Your task to perform on an android device: Check the weather Image 0: 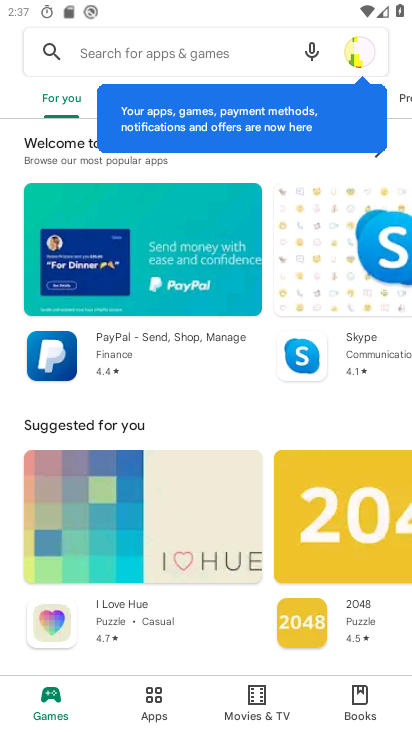
Step 0: press home button
Your task to perform on an android device: Check the weather Image 1: 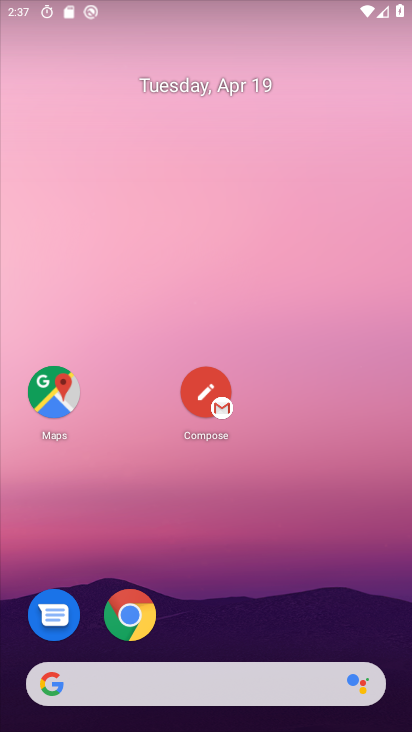
Step 1: drag from (297, 661) to (274, 119)
Your task to perform on an android device: Check the weather Image 2: 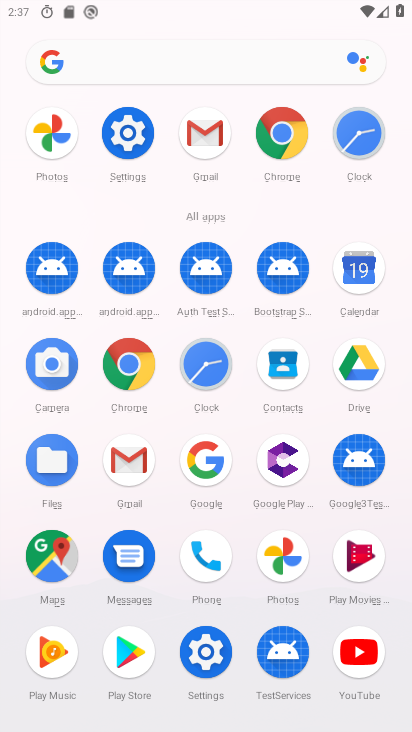
Step 2: drag from (325, 584) to (320, 240)
Your task to perform on an android device: Check the weather Image 3: 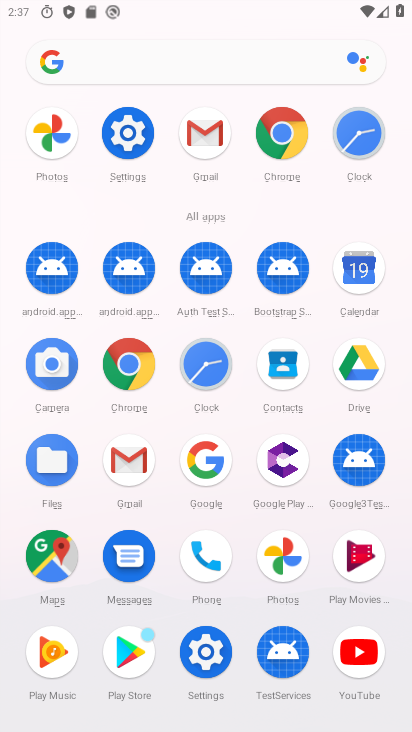
Step 3: click (139, 364)
Your task to perform on an android device: Check the weather Image 4: 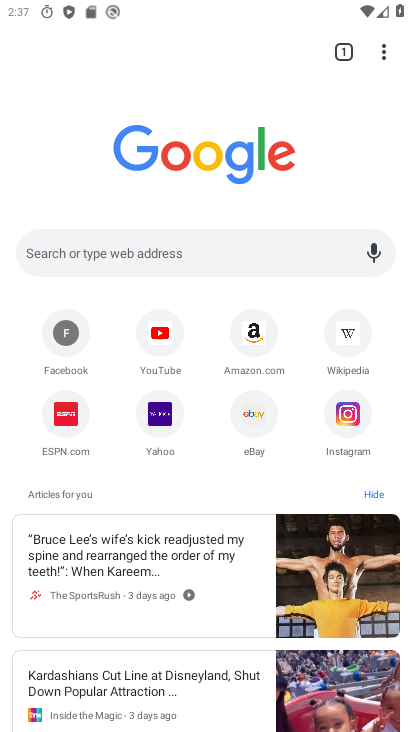
Step 4: click (135, 254)
Your task to perform on an android device: Check the weather Image 5: 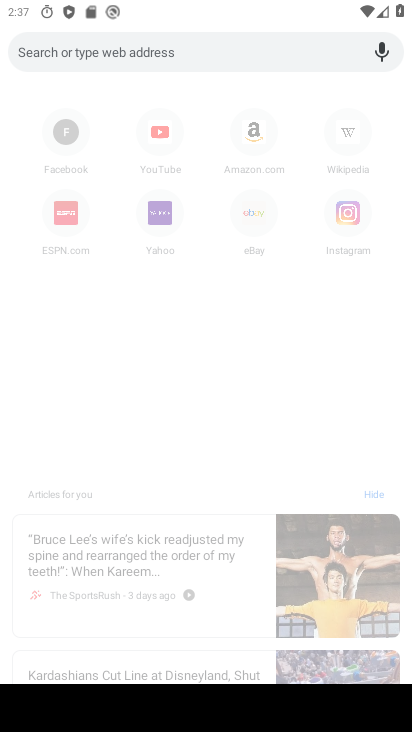
Step 5: type "weather"
Your task to perform on an android device: Check the weather Image 6: 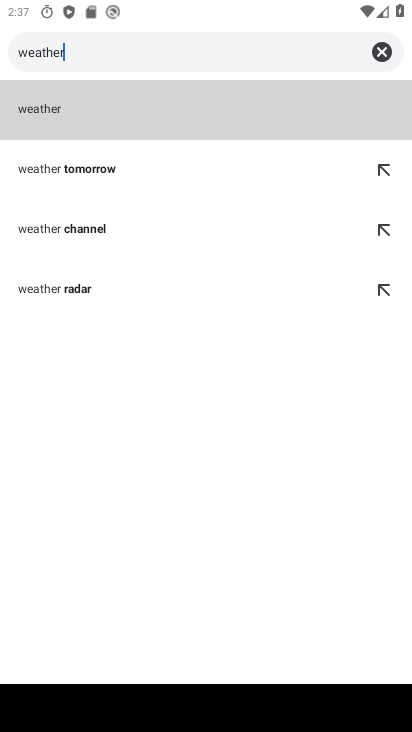
Step 6: click (342, 108)
Your task to perform on an android device: Check the weather Image 7: 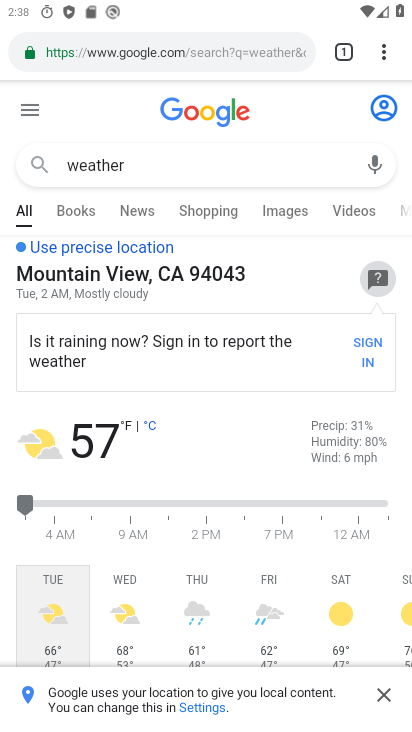
Step 7: task complete